Your task to perform on an android device: open app "File Manager" Image 0: 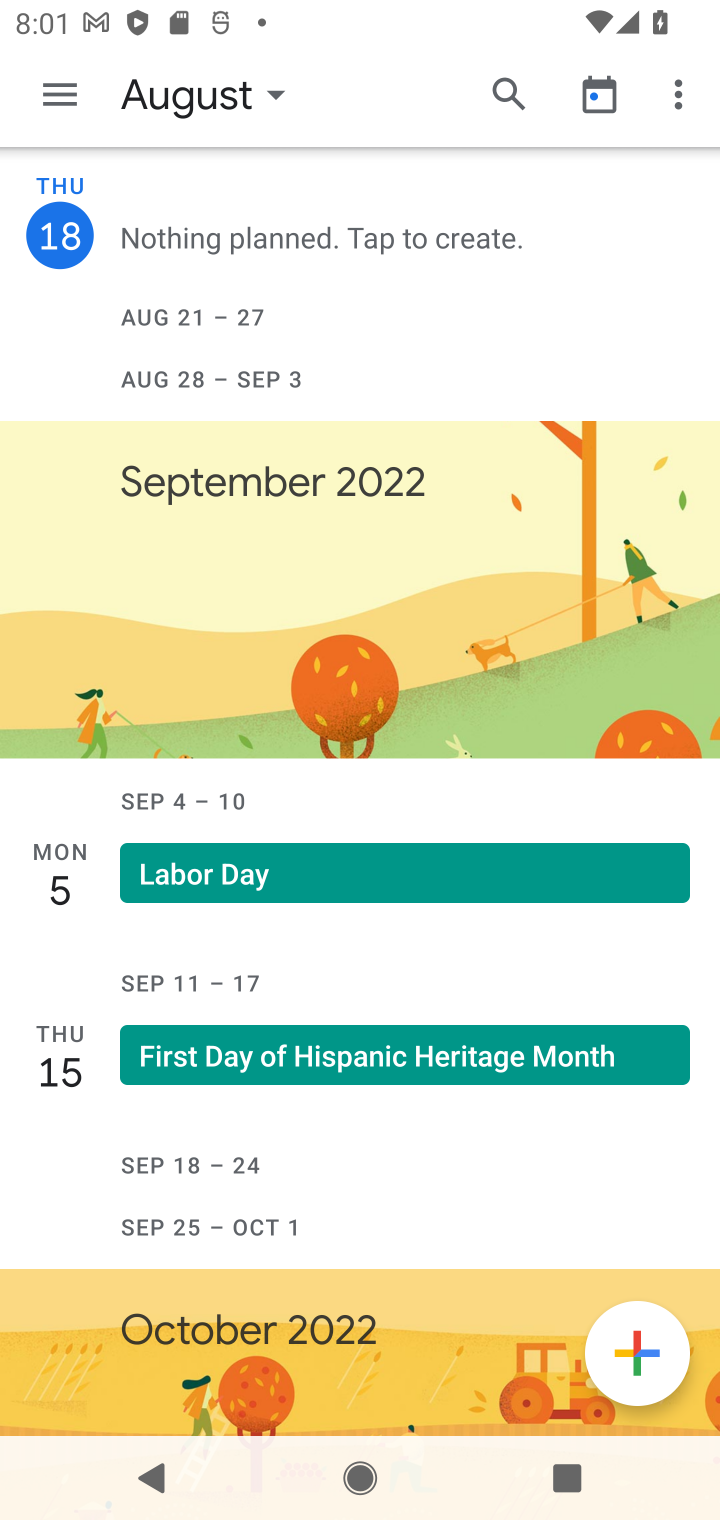
Step 0: press back button
Your task to perform on an android device: open app "File Manager" Image 1: 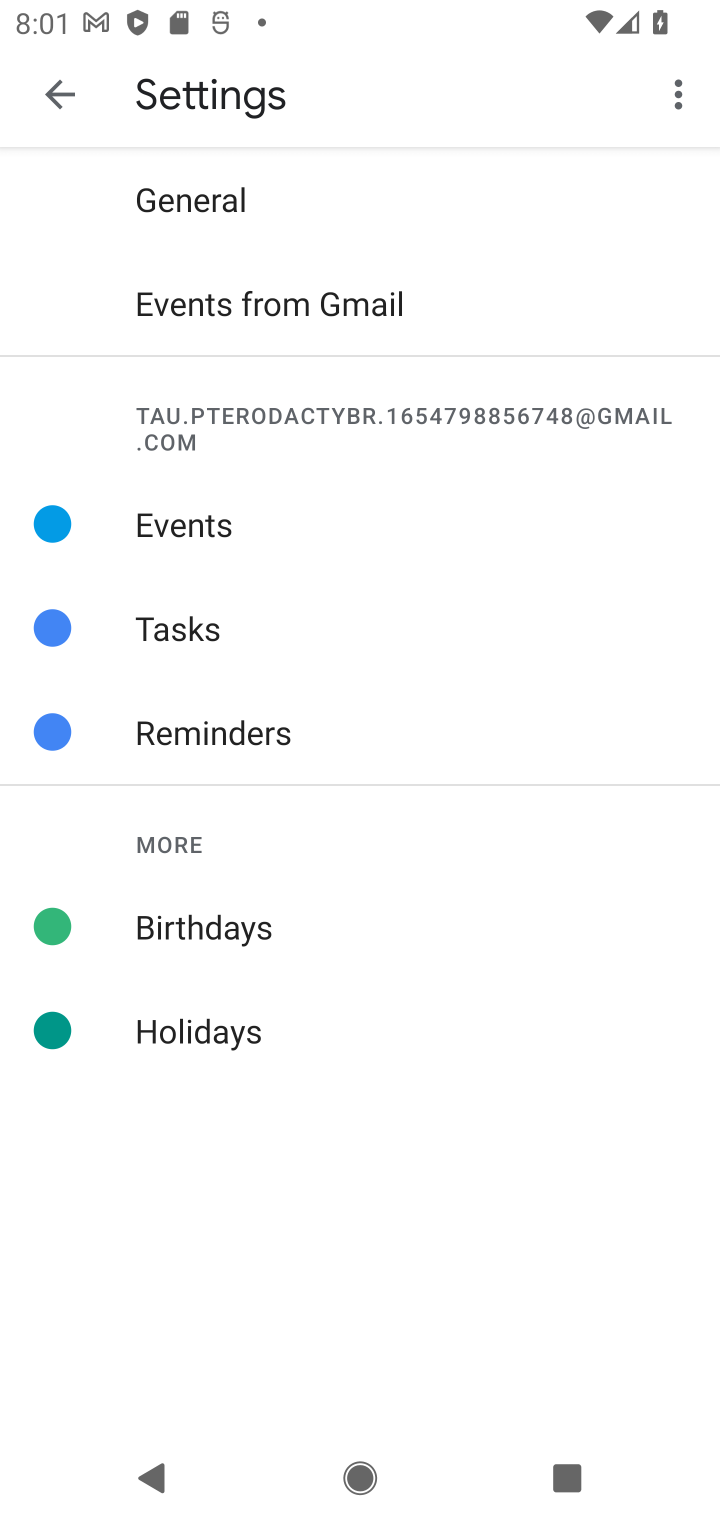
Step 1: press back button
Your task to perform on an android device: open app "File Manager" Image 2: 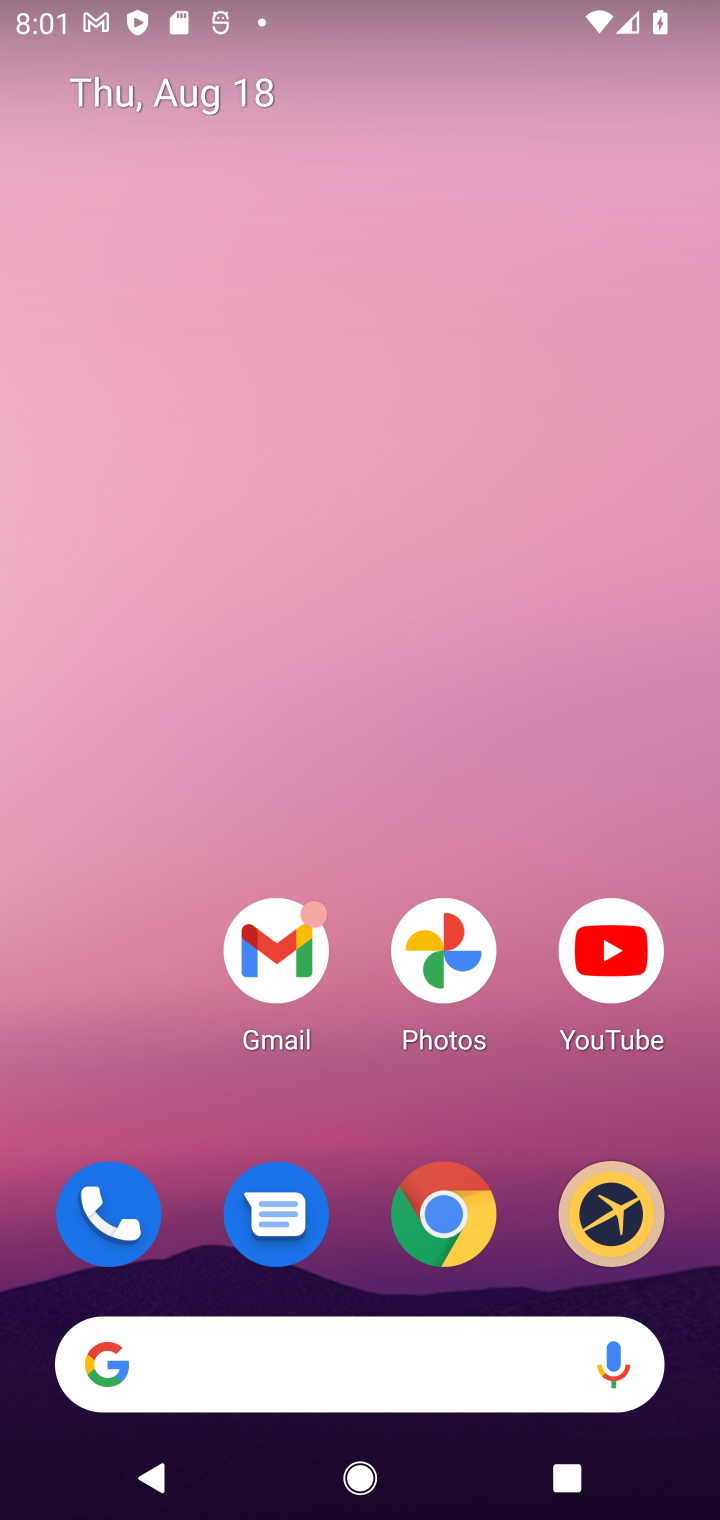
Step 2: drag from (81, 876) to (279, 40)
Your task to perform on an android device: open app "File Manager" Image 3: 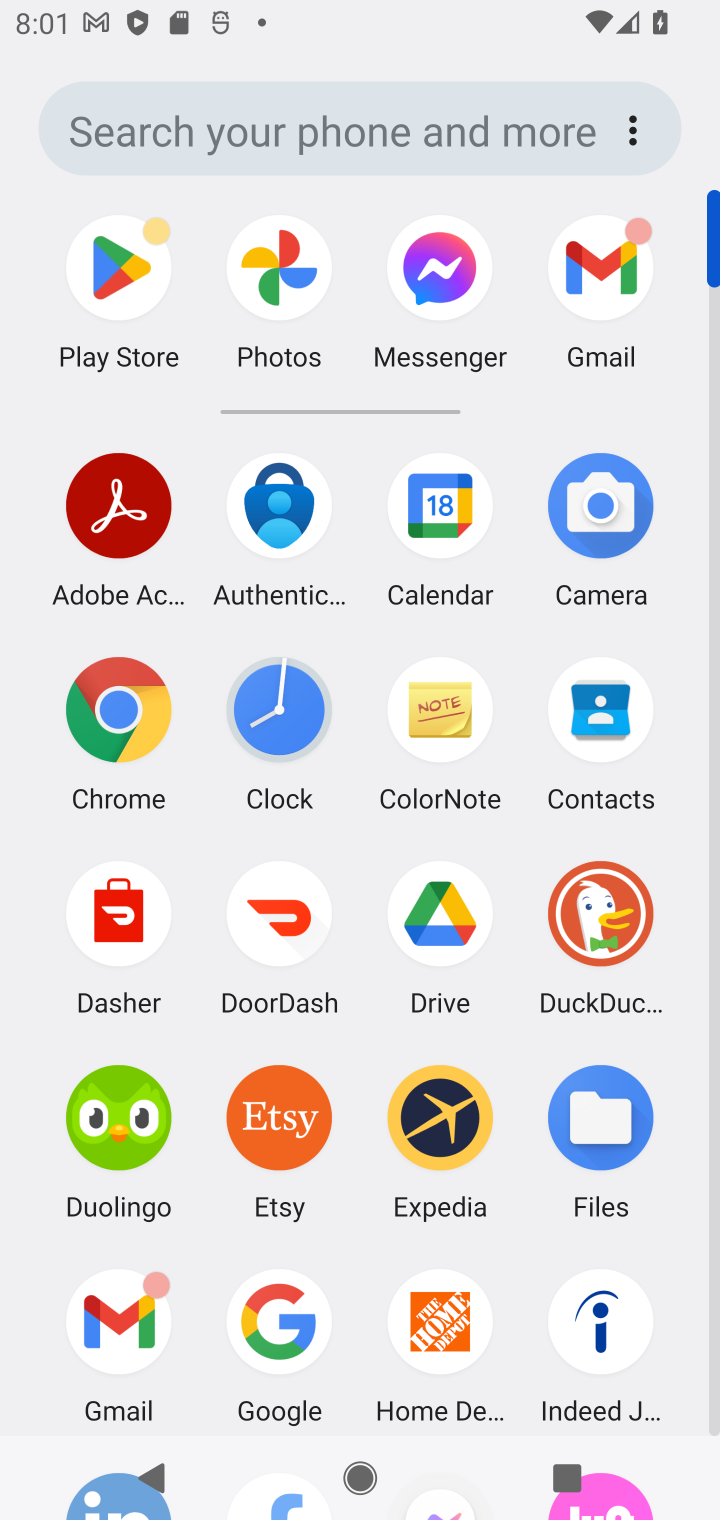
Step 3: click (97, 250)
Your task to perform on an android device: open app "File Manager" Image 4: 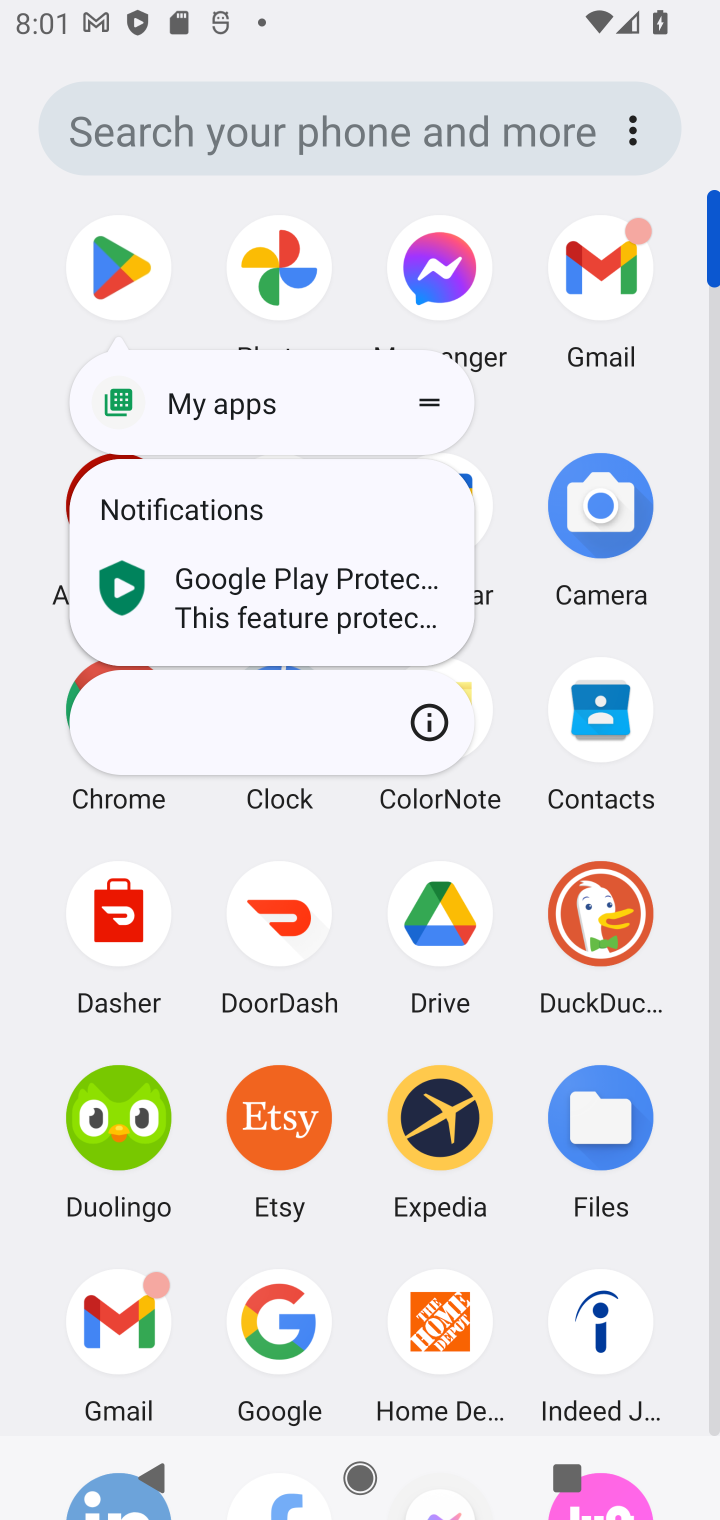
Step 4: click (131, 270)
Your task to perform on an android device: open app "File Manager" Image 5: 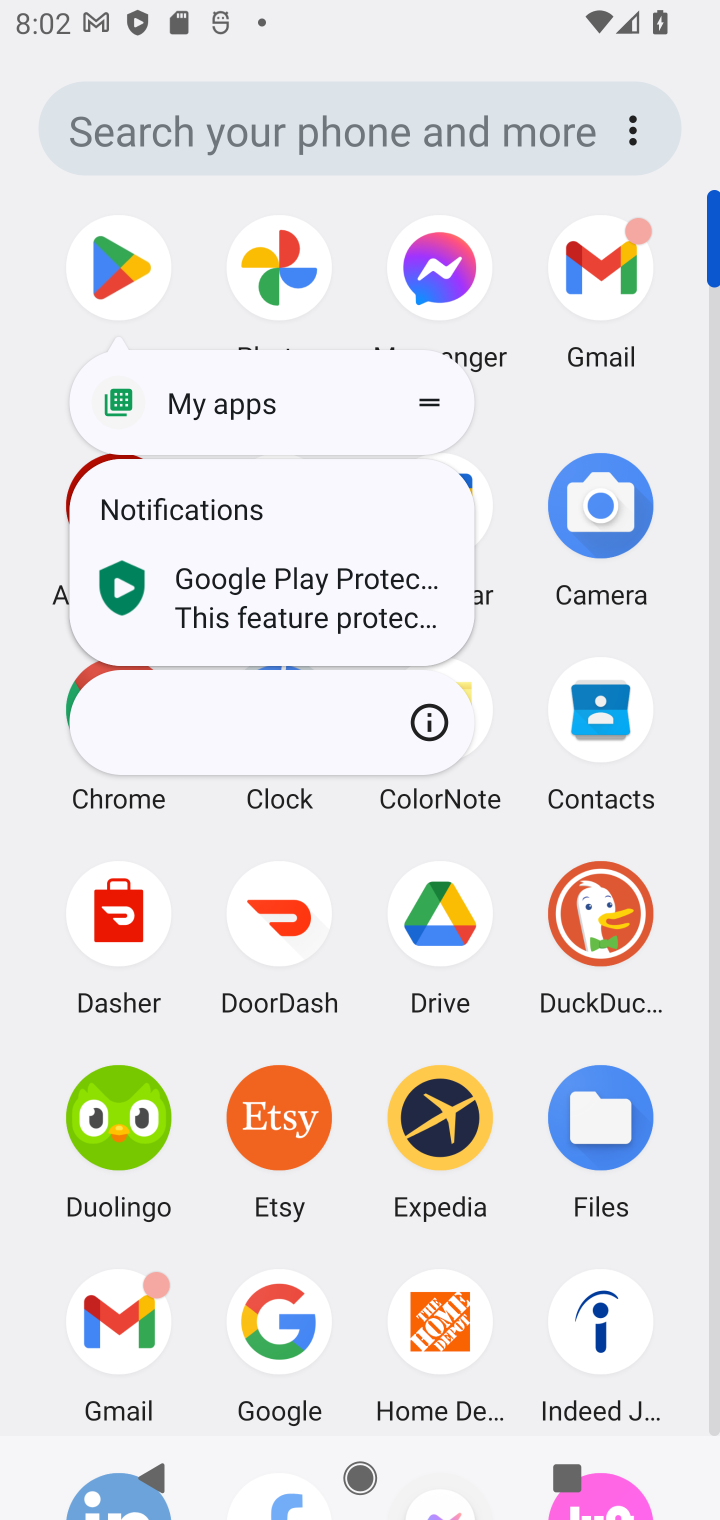
Step 5: click (14, 350)
Your task to perform on an android device: open app "File Manager" Image 6: 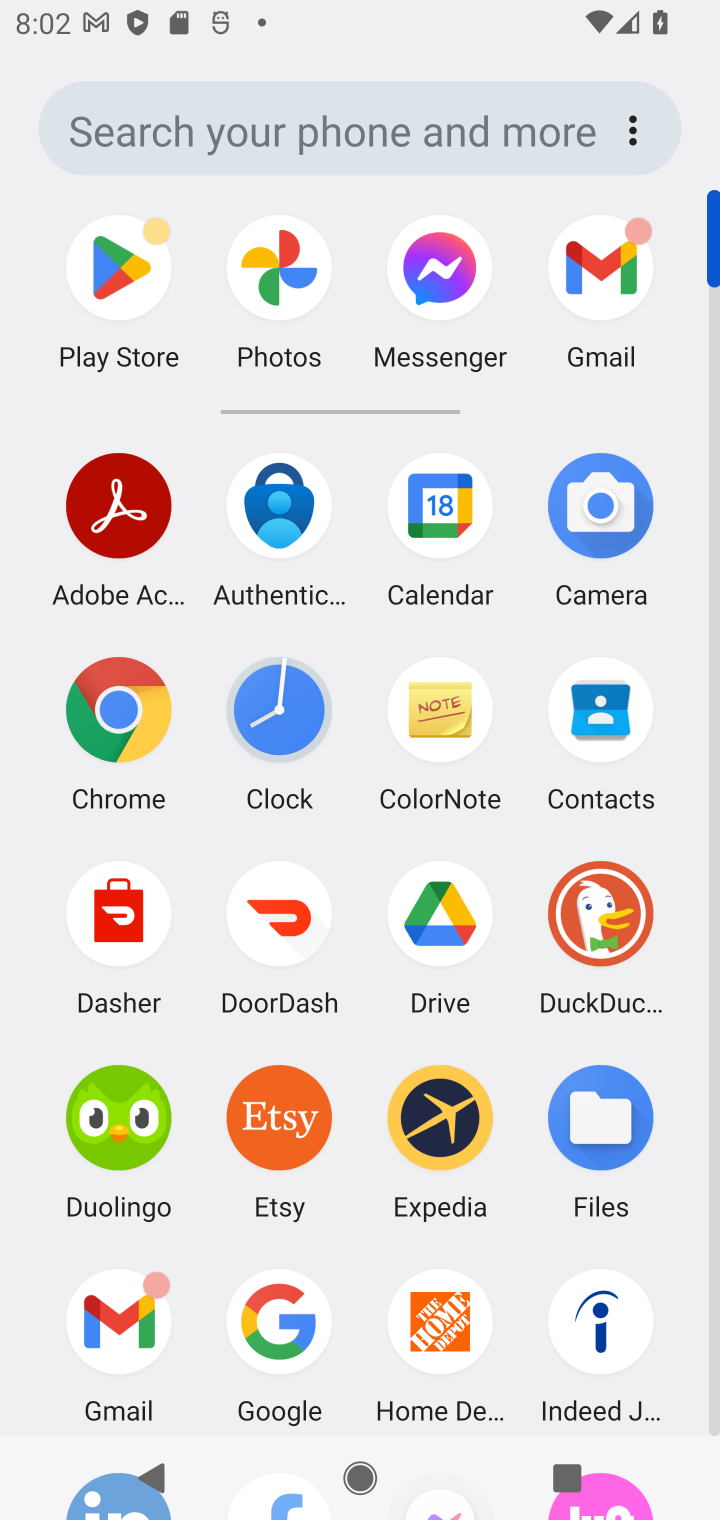
Step 6: click (100, 274)
Your task to perform on an android device: open app "File Manager" Image 7: 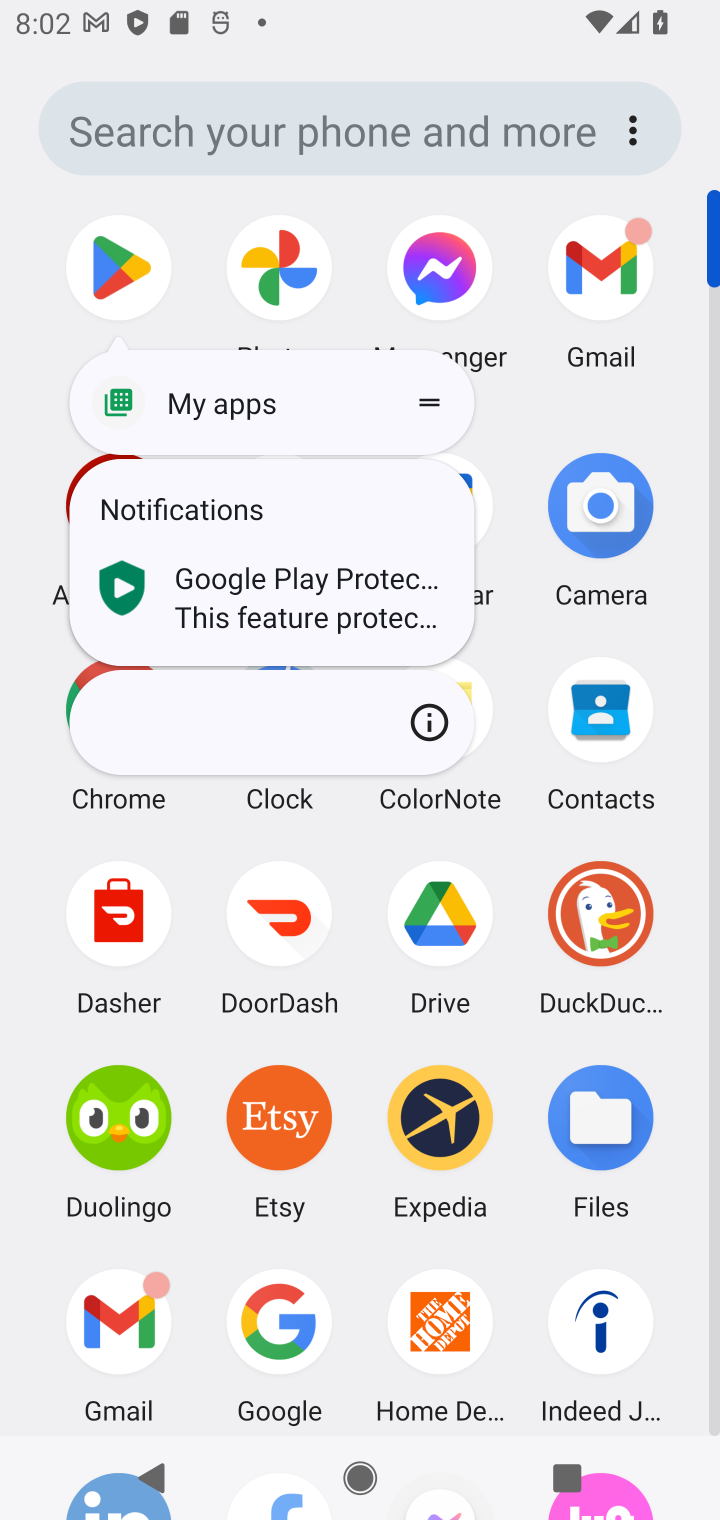
Step 7: click (124, 269)
Your task to perform on an android device: open app "File Manager" Image 8: 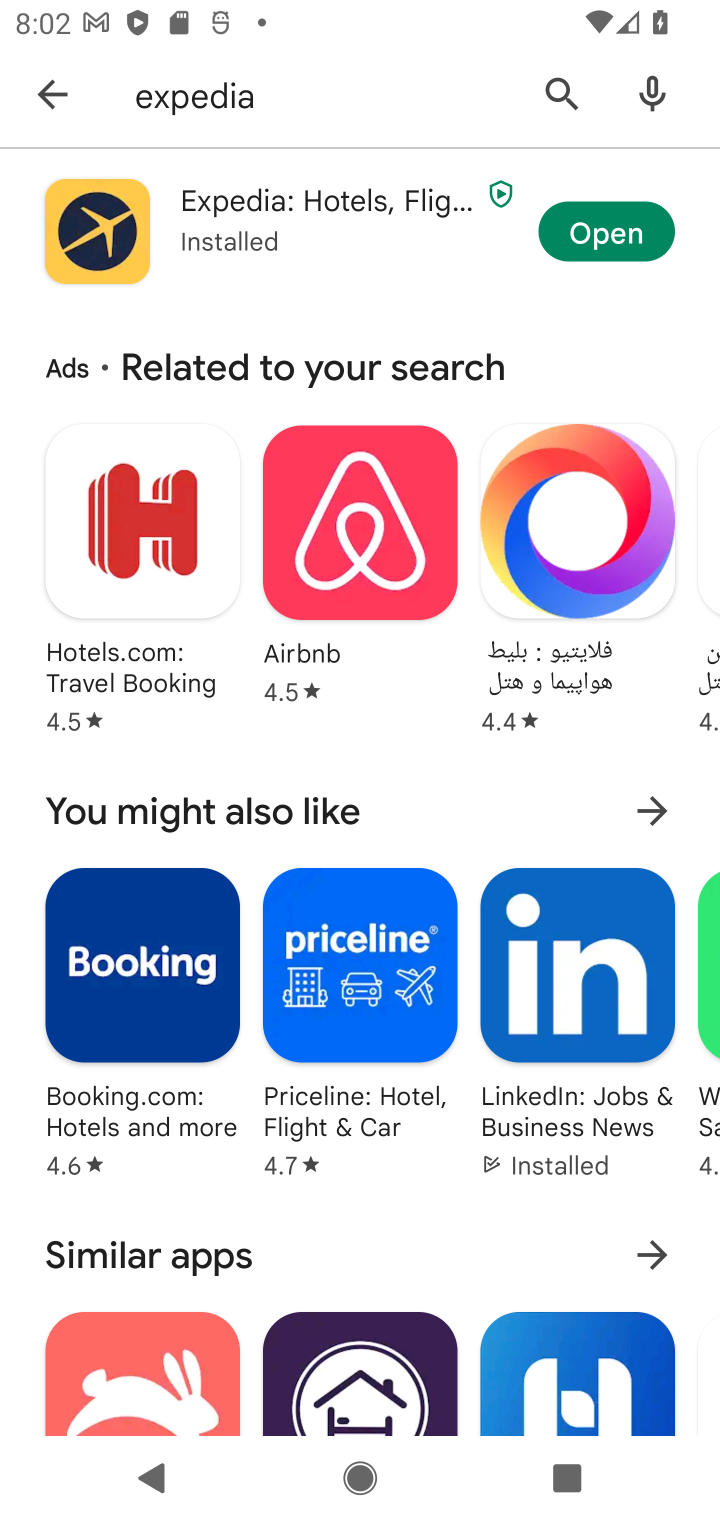
Step 8: click (561, 90)
Your task to perform on an android device: open app "File Manager" Image 9: 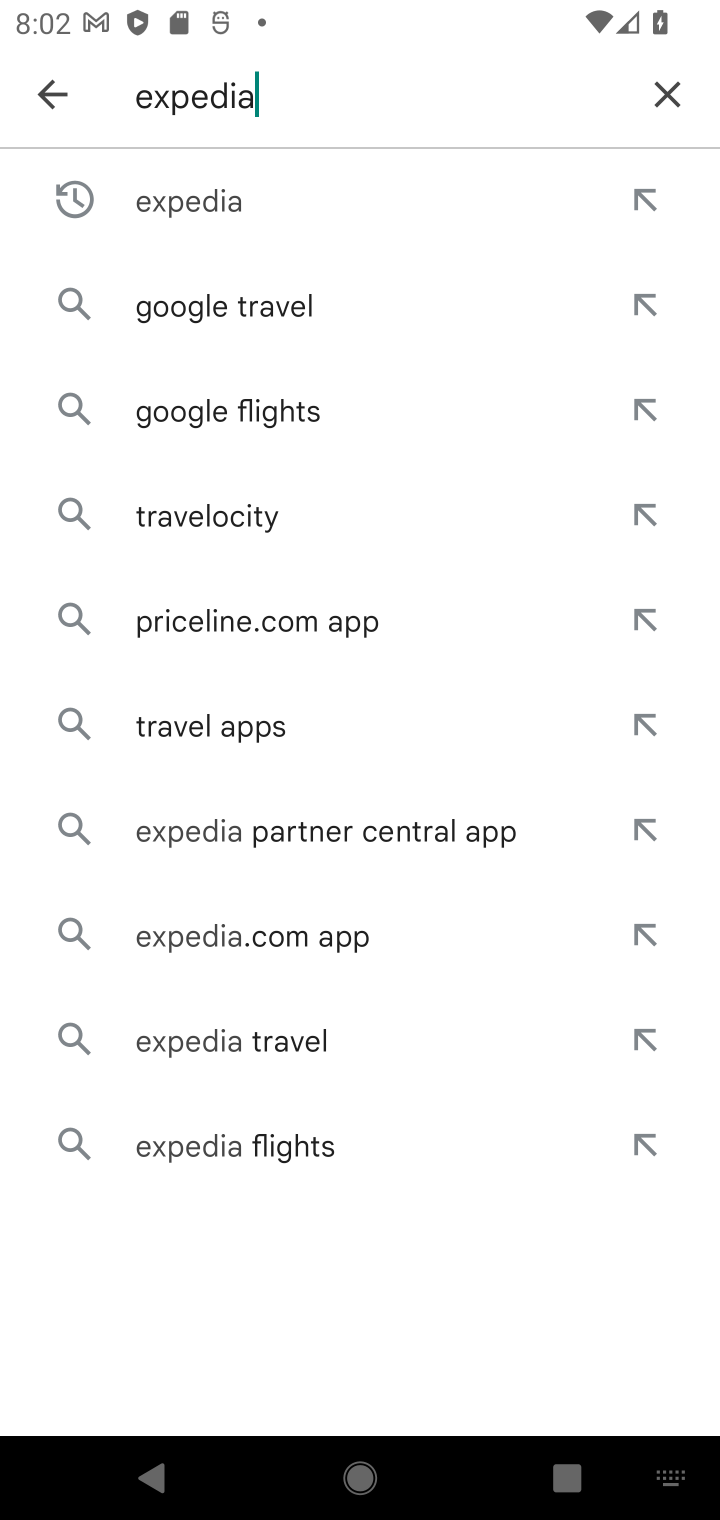
Step 9: click (669, 85)
Your task to perform on an android device: open app "File Manager" Image 10: 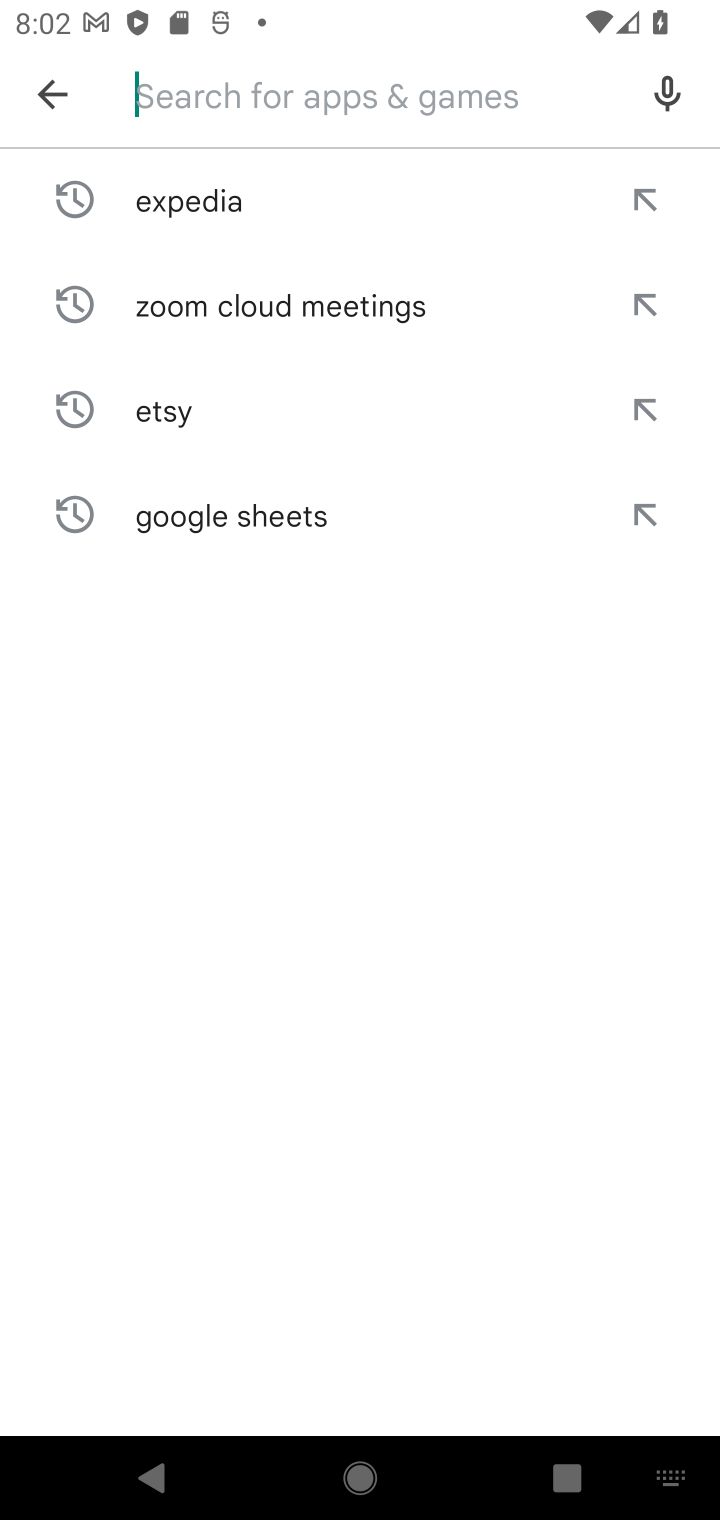
Step 10: click (340, 93)
Your task to perform on an android device: open app "File Manager" Image 11: 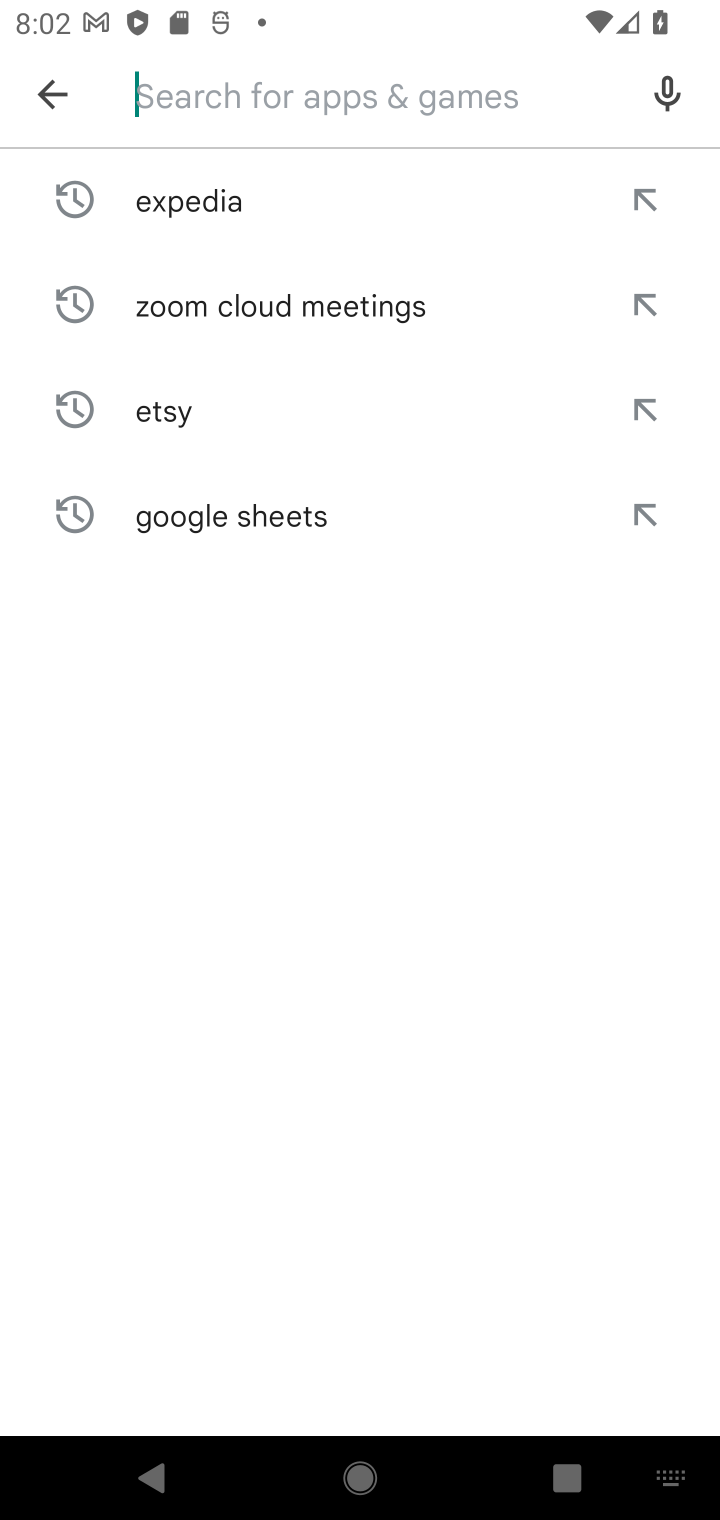
Step 11: type "file manager"
Your task to perform on an android device: open app "File Manager" Image 12: 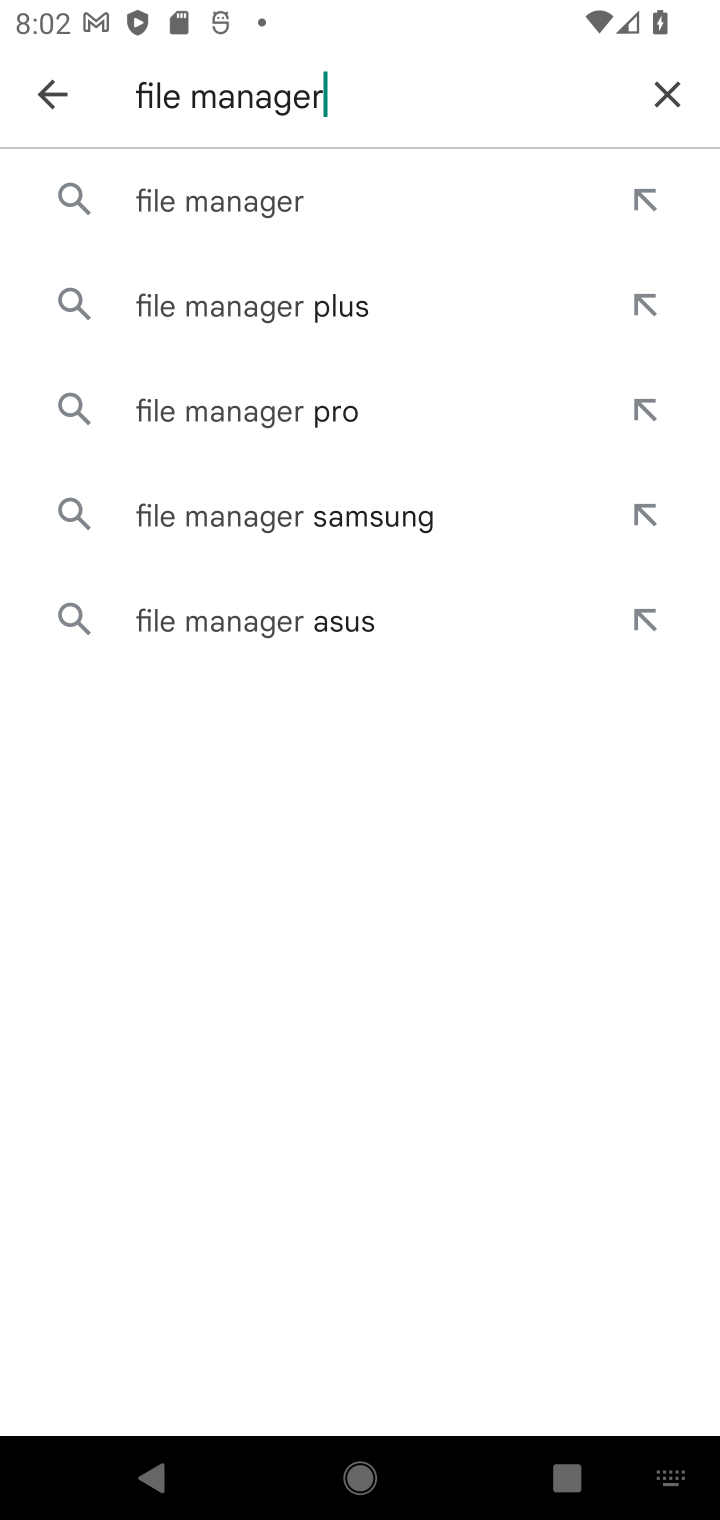
Step 12: click (200, 204)
Your task to perform on an android device: open app "File Manager" Image 13: 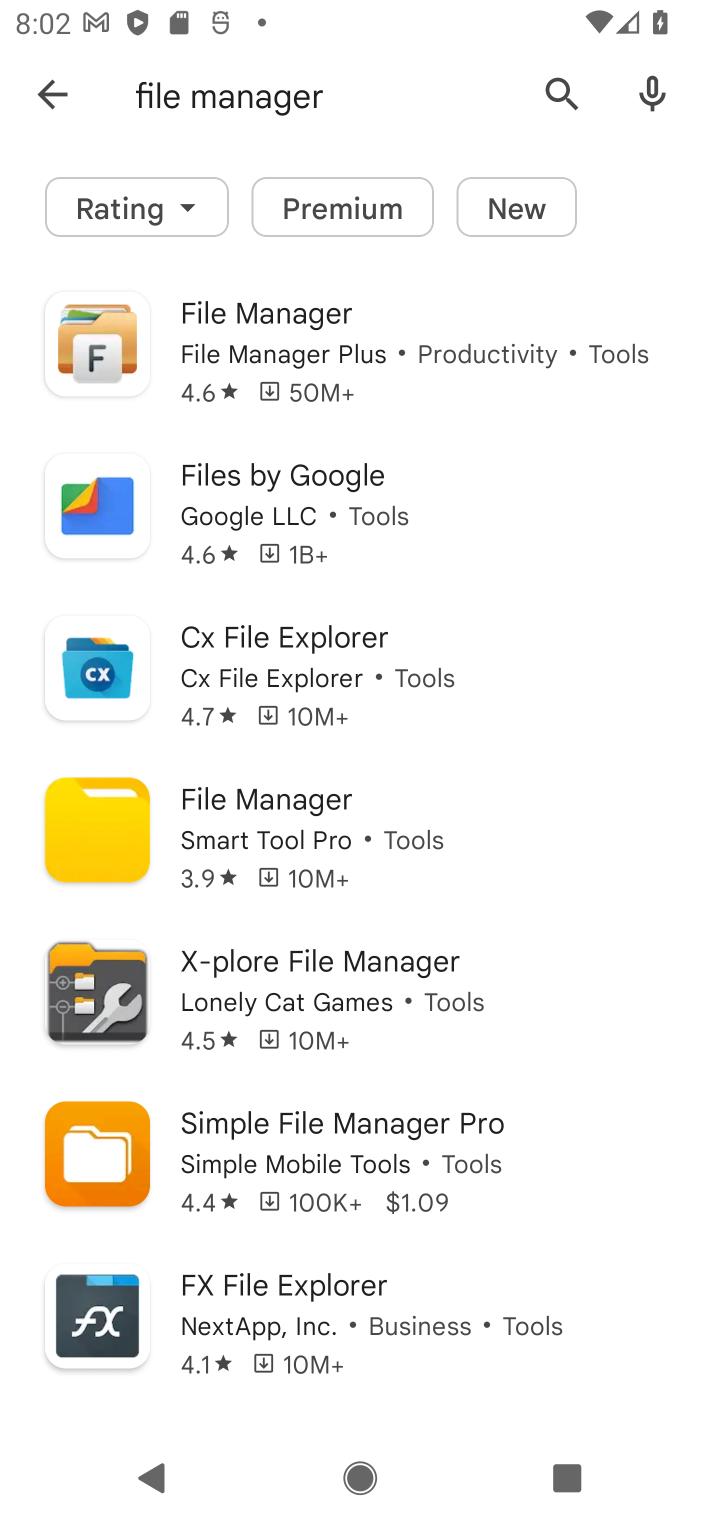
Step 13: click (403, 351)
Your task to perform on an android device: open app "File Manager" Image 14: 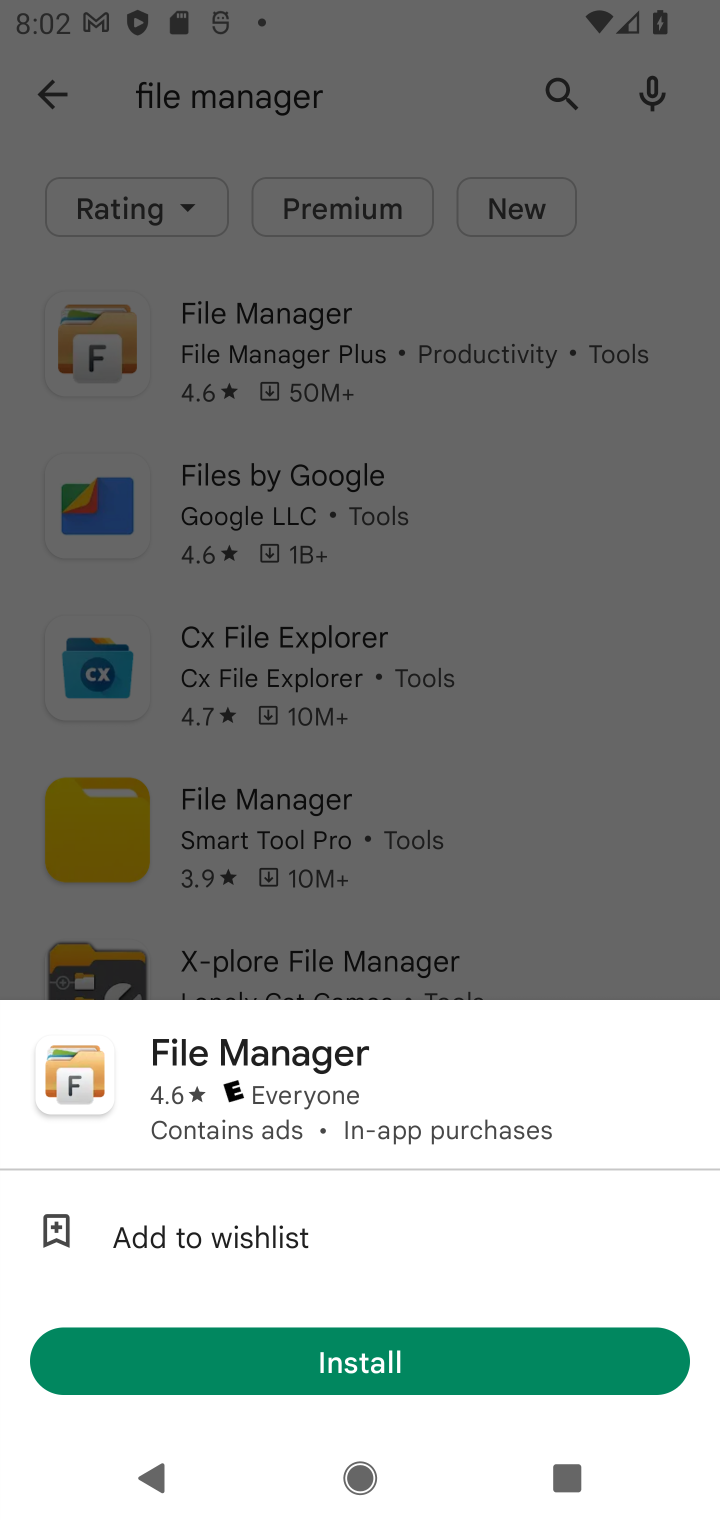
Step 14: task complete